Your task to perform on an android device: Play the last video I watched on Youtube Image 0: 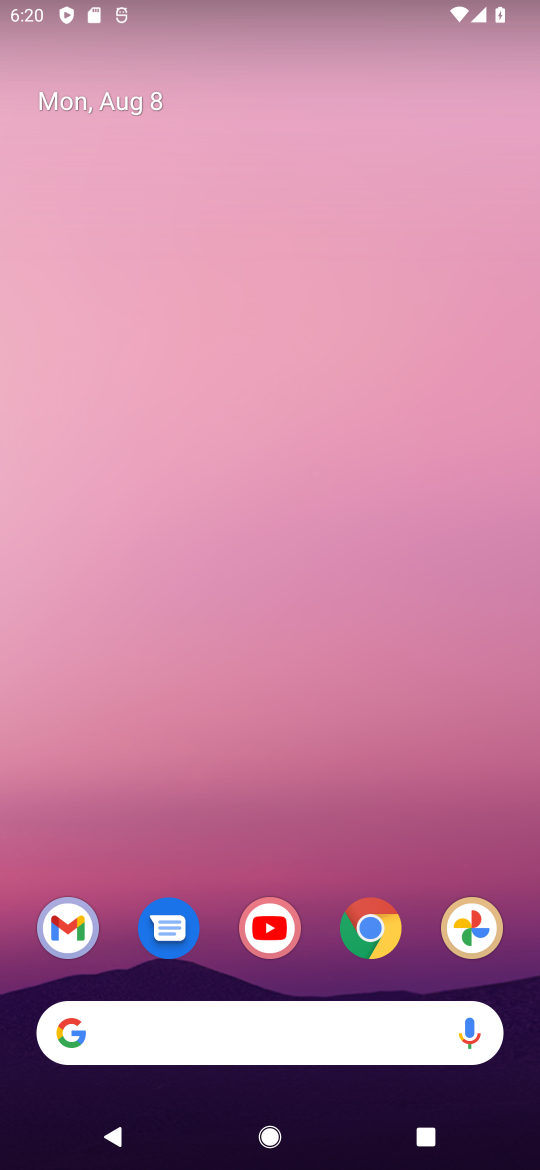
Step 0: click (258, 919)
Your task to perform on an android device: Play the last video I watched on Youtube Image 1: 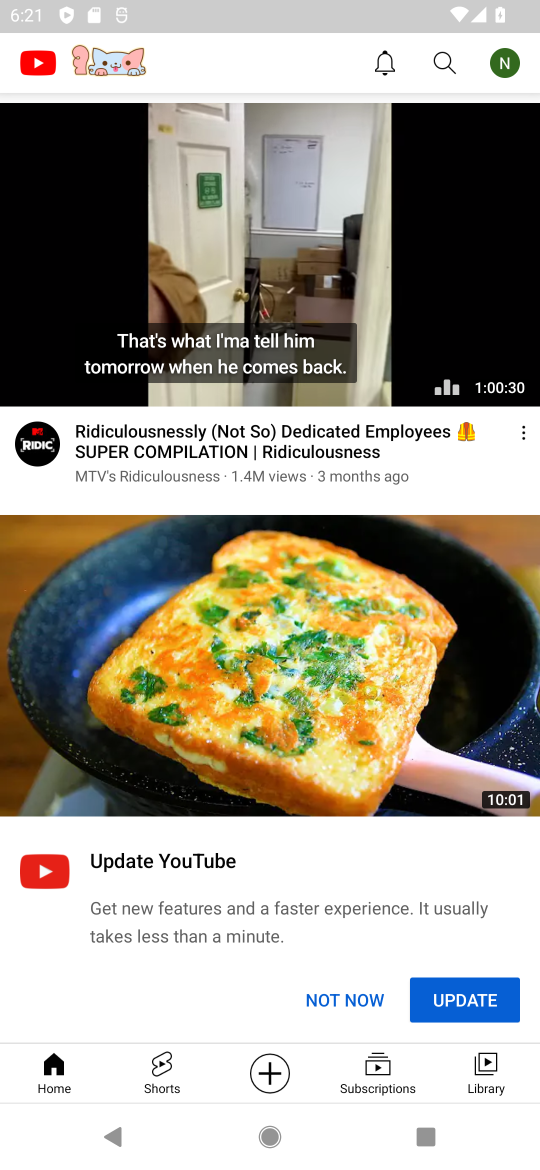
Step 1: click (488, 1070)
Your task to perform on an android device: Play the last video I watched on Youtube Image 2: 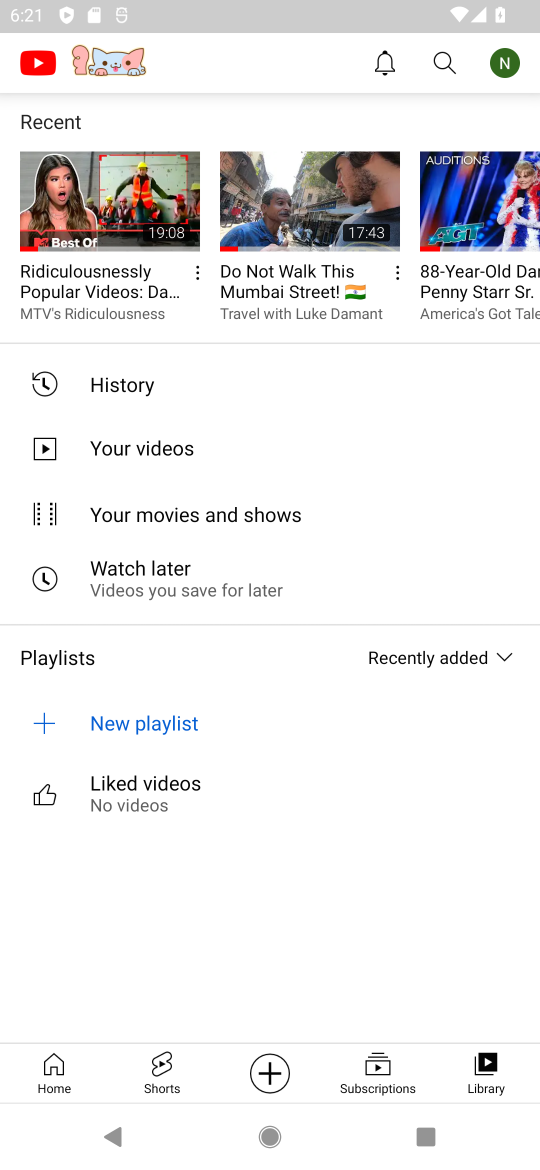
Step 2: click (139, 225)
Your task to perform on an android device: Play the last video I watched on Youtube Image 3: 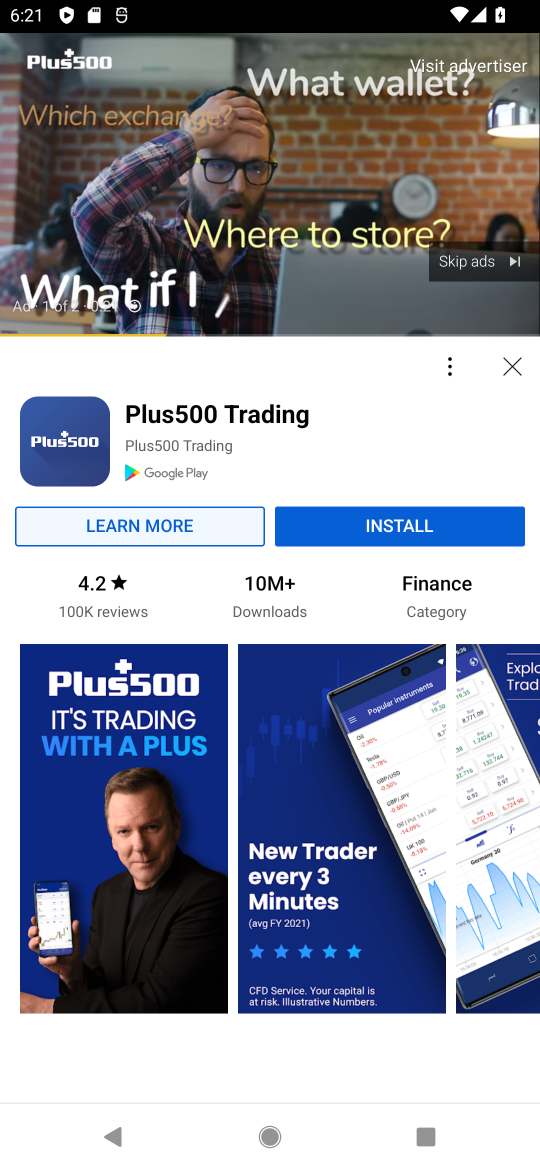
Step 3: click (479, 260)
Your task to perform on an android device: Play the last video I watched on Youtube Image 4: 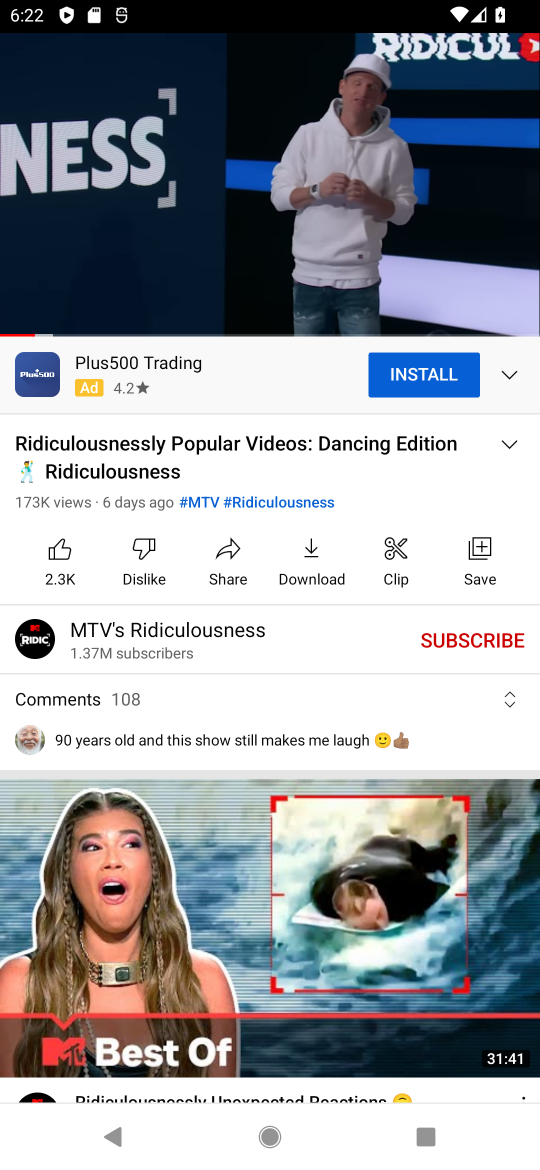
Step 4: task complete